Your task to perform on an android device: Open Android settings Image 0: 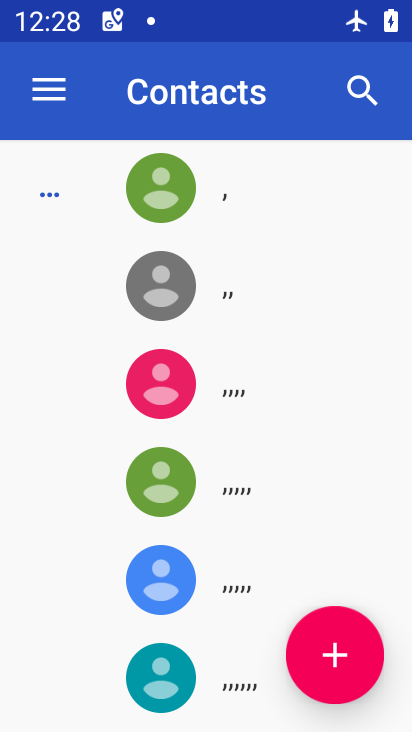
Step 0: press home button
Your task to perform on an android device: Open Android settings Image 1: 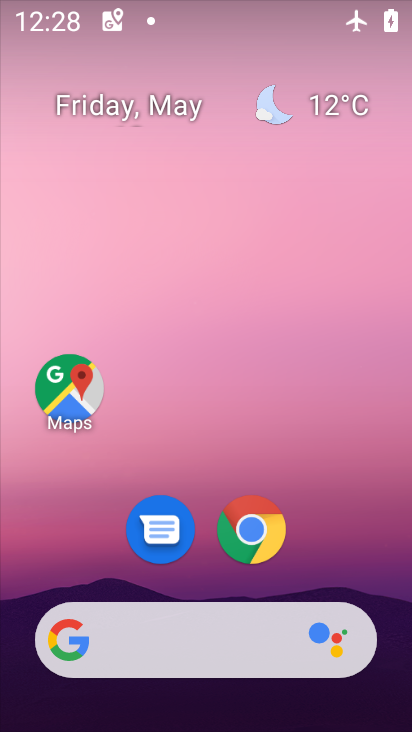
Step 1: drag from (327, 486) to (328, 319)
Your task to perform on an android device: Open Android settings Image 2: 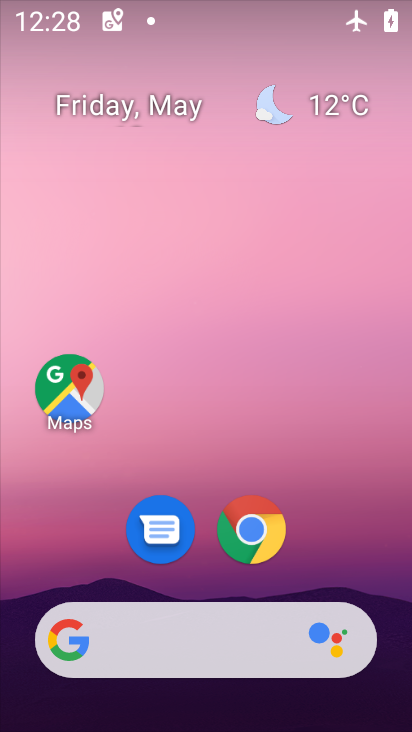
Step 2: drag from (341, 481) to (321, 197)
Your task to perform on an android device: Open Android settings Image 3: 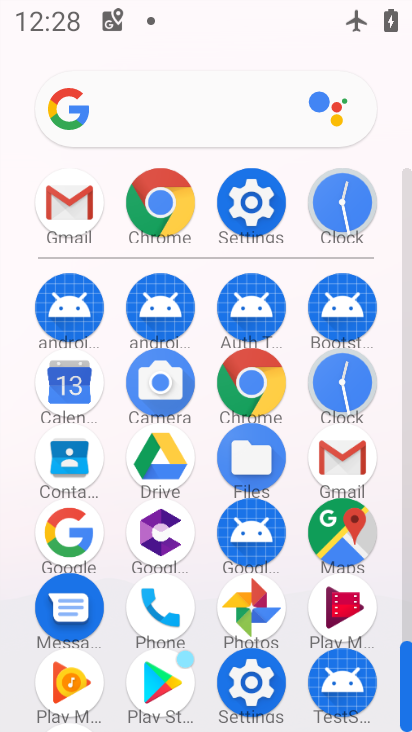
Step 3: click (250, 197)
Your task to perform on an android device: Open Android settings Image 4: 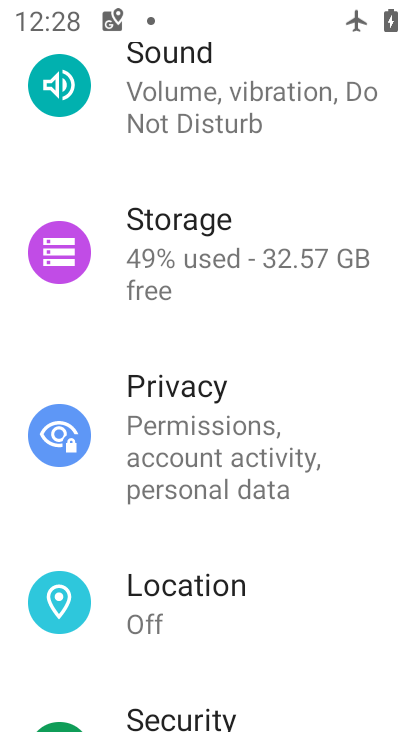
Step 4: drag from (225, 128) to (228, 677)
Your task to perform on an android device: Open Android settings Image 5: 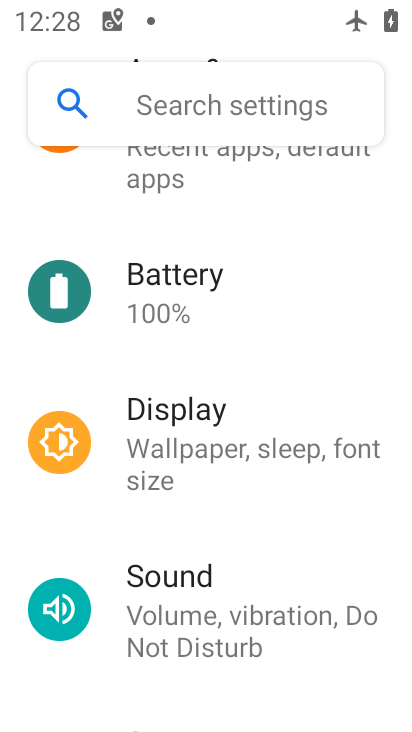
Step 5: drag from (182, 629) to (208, 161)
Your task to perform on an android device: Open Android settings Image 6: 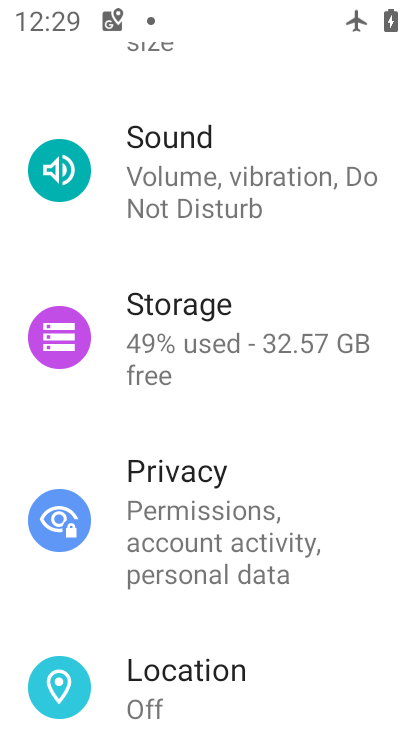
Step 6: drag from (169, 656) to (258, 174)
Your task to perform on an android device: Open Android settings Image 7: 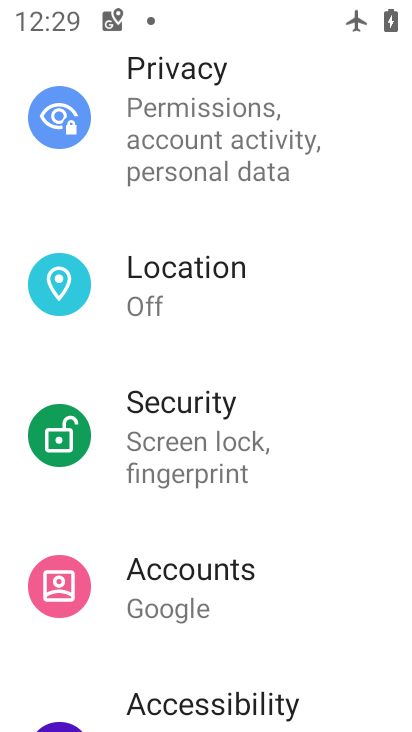
Step 7: drag from (158, 615) to (250, 128)
Your task to perform on an android device: Open Android settings Image 8: 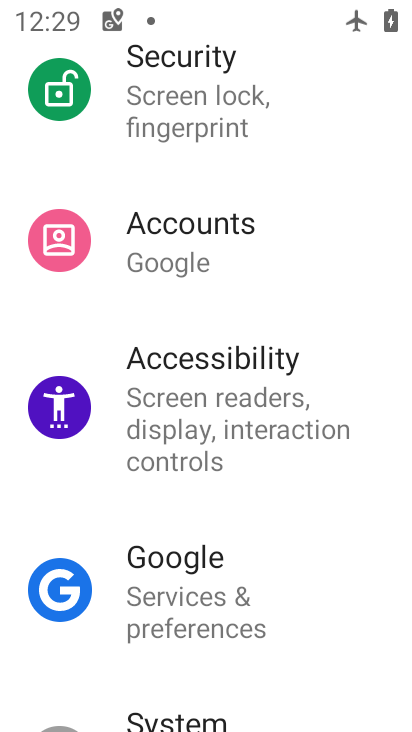
Step 8: drag from (218, 534) to (249, 124)
Your task to perform on an android device: Open Android settings Image 9: 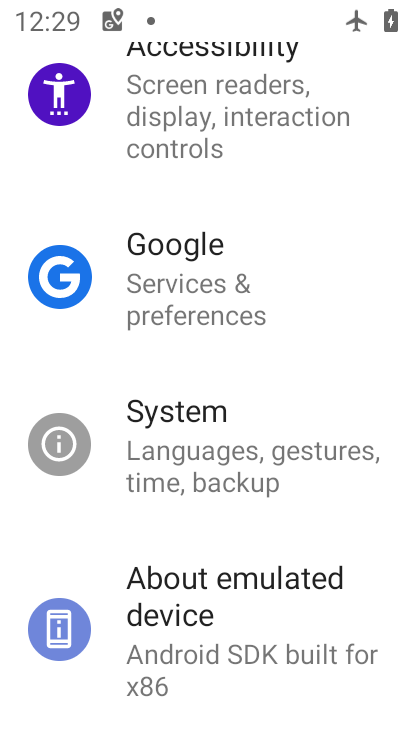
Step 9: drag from (193, 614) to (278, 229)
Your task to perform on an android device: Open Android settings Image 10: 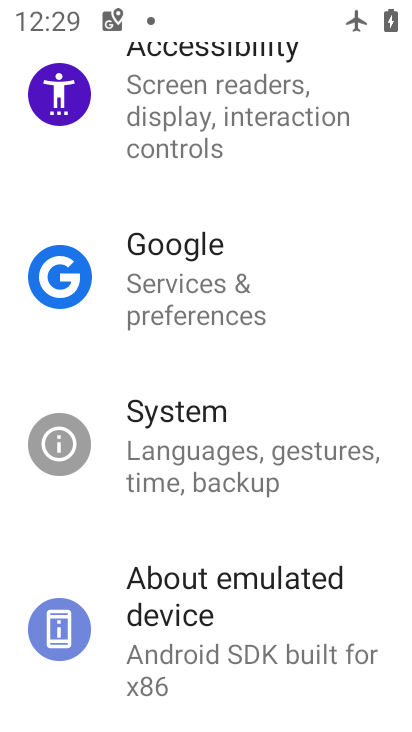
Step 10: click (228, 609)
Your task to perform on an android device: Open Android settings Image 11: 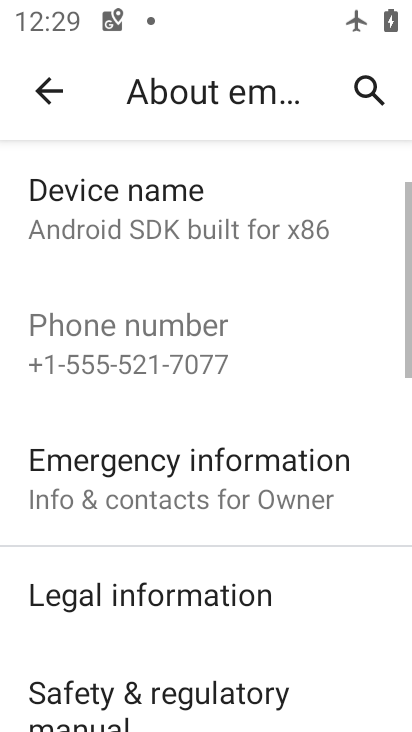
Step 11: task complete